Your task to perform on an android device: Open Amazon Image 0: 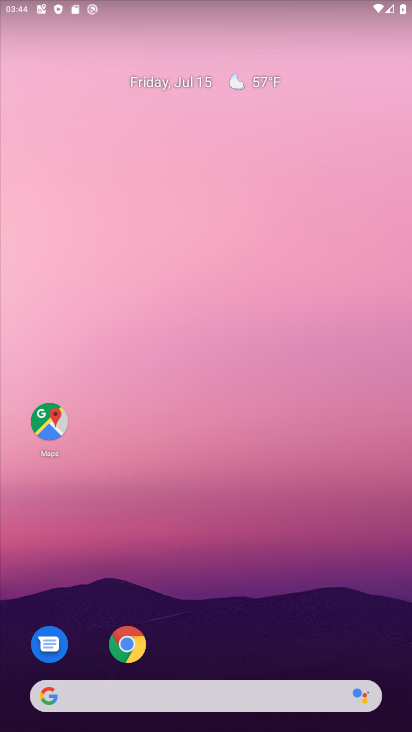
Step 0: click (122, 645)
Your task to perform on an android device: Open Amazon Image 1: 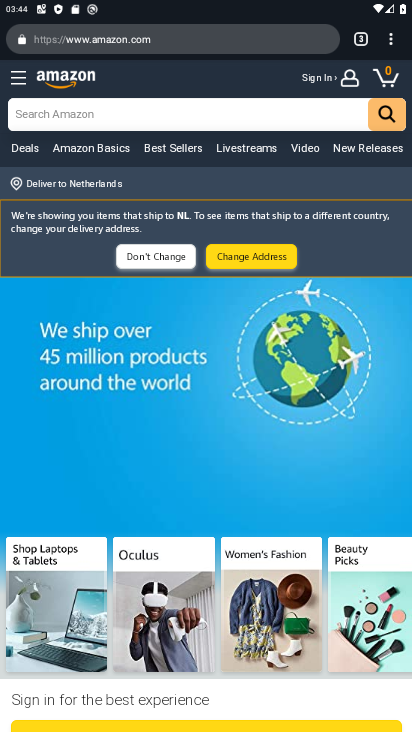
Step 1: task complete